Your task to perform on an android device: Open the Play Movies app and select the watchlist tab. Image 0: 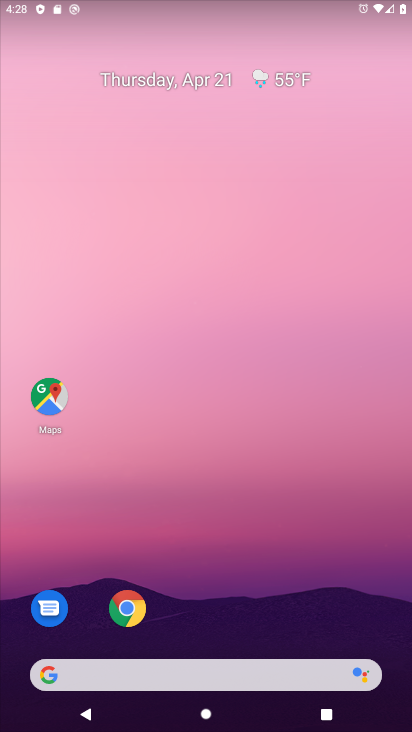
Step 0: drag from (190, 506) to (213, 121)
Your task to perform on an android device: Open the Play Movies app and select the watchlist tab. Image 1: 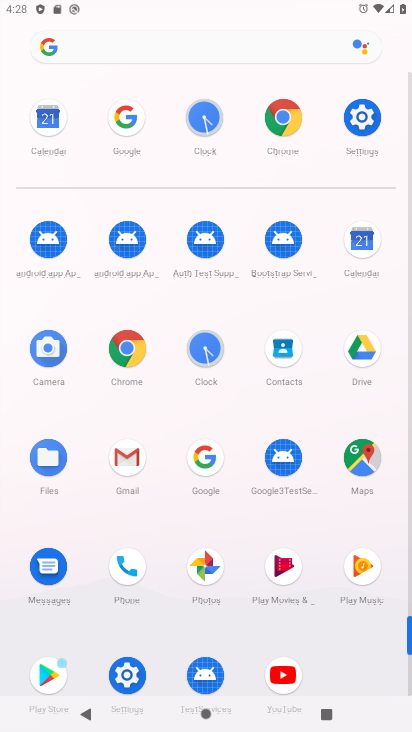
Step 1: click (281, 577)
Your task to perform on an android device: Open the Play Movies app and select the watchlist tab. Image 2: 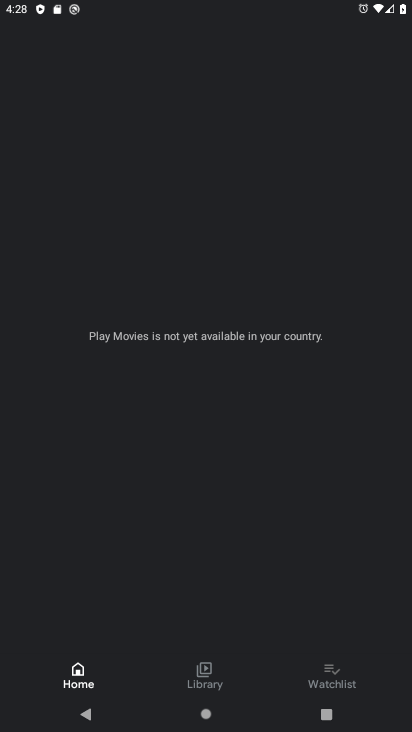
Step 2: click (308, 291)
Your task to perform on an android device: Open the Play Movies app and select the watchlist tab. Image 3: 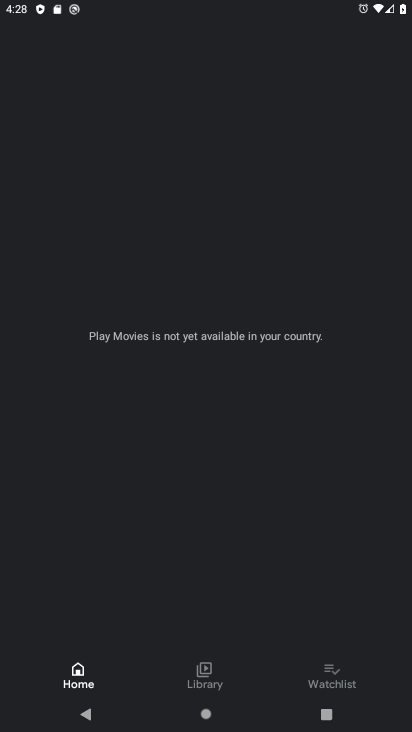
Step 3: click (338, 672)
Your task to perform on an android device: Open the Play Movies app and select the watchlist tab. Image 4: 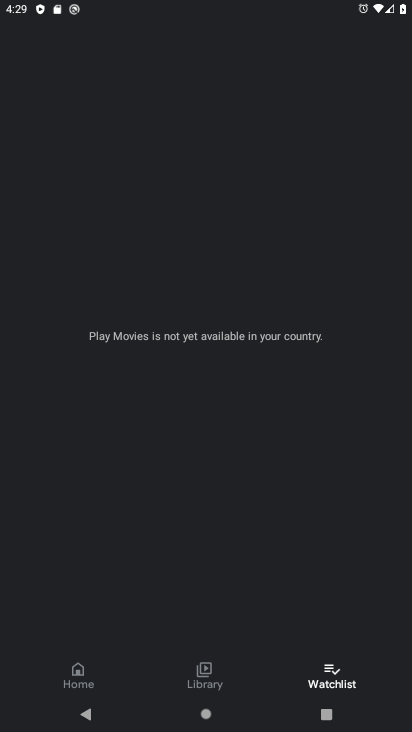
Step 4: click (333, 672)
Your task to perform on an android device: Open the Play Movies app and select the watchlist tab. Image 5: 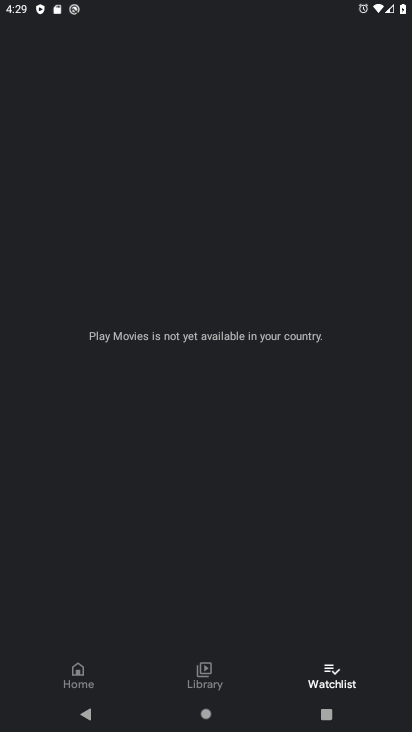
Step 5: click (333, 661)
Your task to perform on an android device: Open the Play Movies app and select the watchlist tab. Image 6: 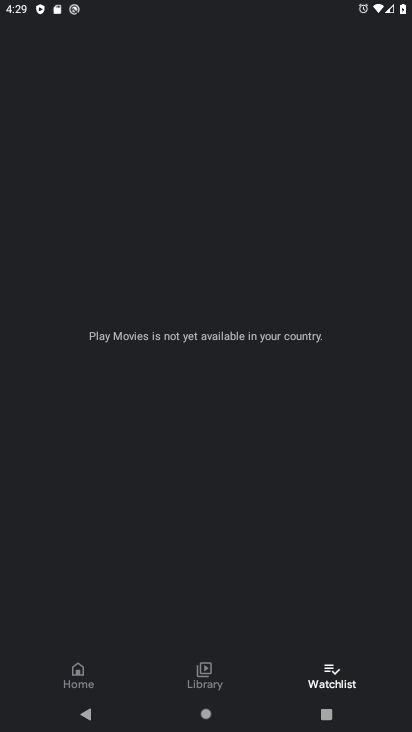
Step 6: click (323, 671)
Your task to perform on an android device: Open the Play Movies app and select the watchlist tab. Image 7: 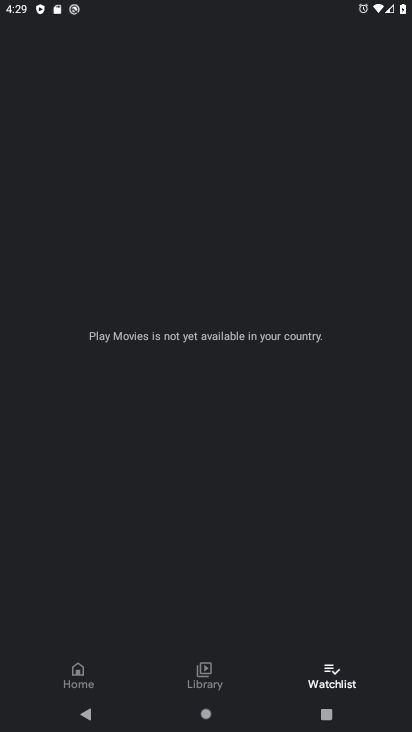
Step 7: task complete